Your task to perform on an android device: delete browsing data in the chrome app Image 0: 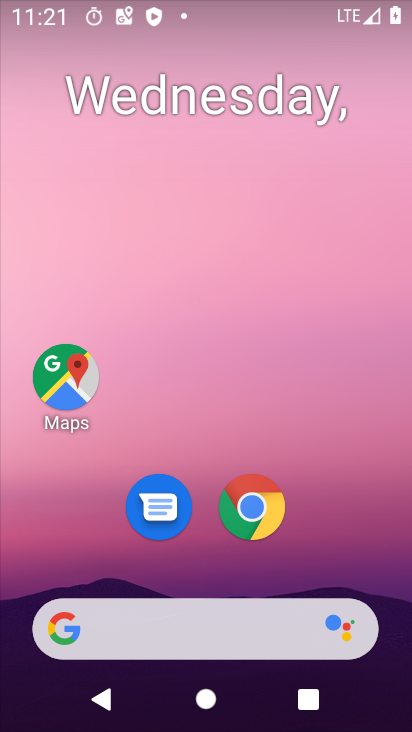
Step 0: click (251, 506)
Your task to perform on an android device: delete browsing data in the chrome app Image 1: 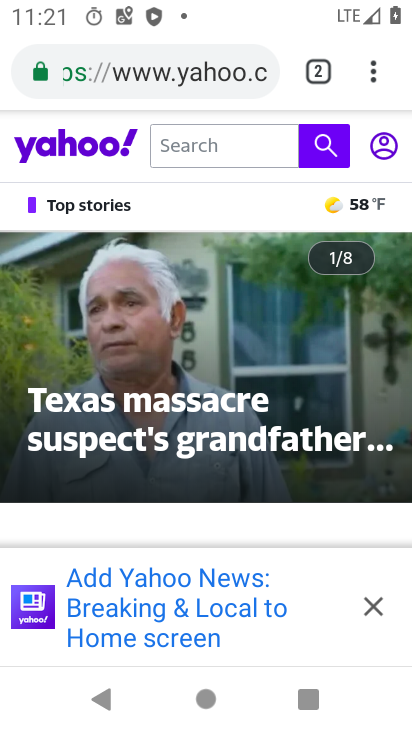
Step 1: click (373, 76)
Your task to perform on an android device: delete browsing data in the chrome app Image 2: 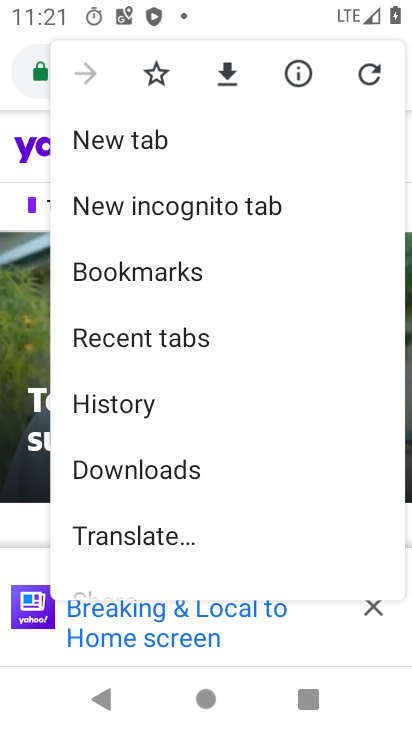
Step 2: click (110, 405)
Your task to perform on an android device: delete browsing data in the chrome app Image 3: 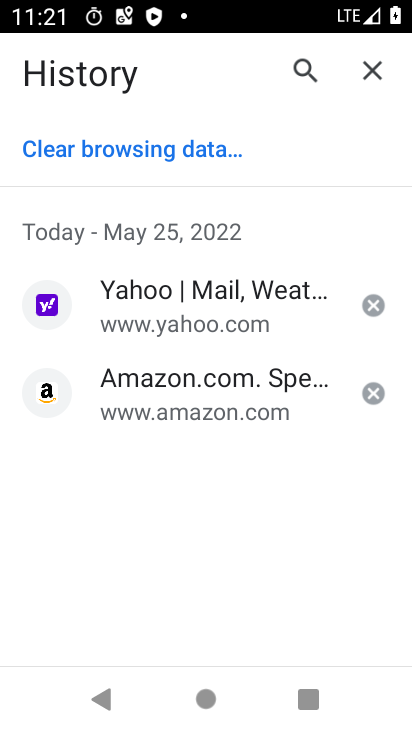
Step 3: click (148, 149)
Your task to perform on an android device: delete browsing data in the chrome app Image 4: 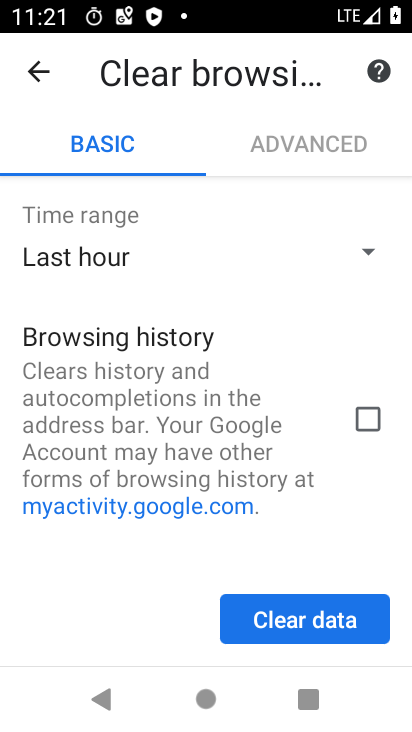
Step 4: click (366, 423)
Your task to perform on an android device: delete browsing data in the chrome app Image 5: 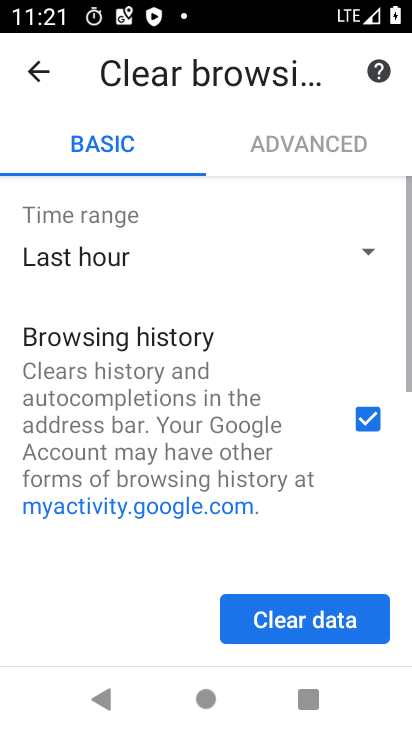
Step 5: drag from (302, 526) to (295, 187)
Your task to perform on an android device: delete browsing data in the chrome app Image 6: 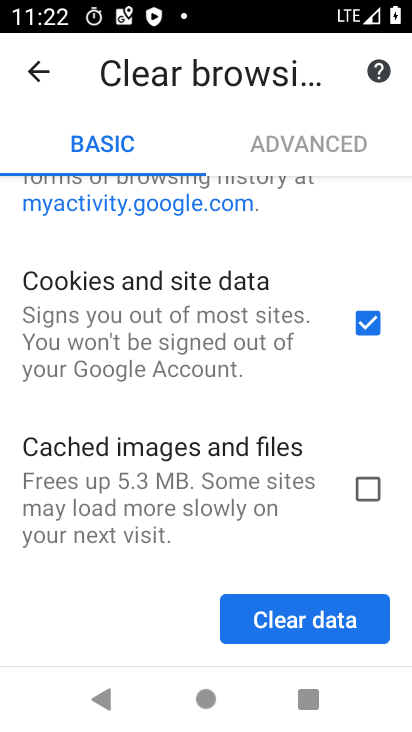
Step 6: click (364, 322)
Your task to perform on an android device: delete browsing data in the chrome app Image 7: 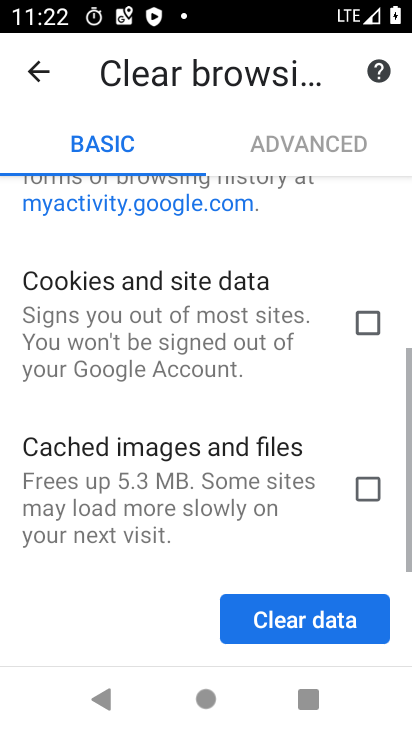
Step 7: drag from (278, 237) to (252, 474)
Your task to perform on an android device: delete browsing data in the chrome app Image 8: 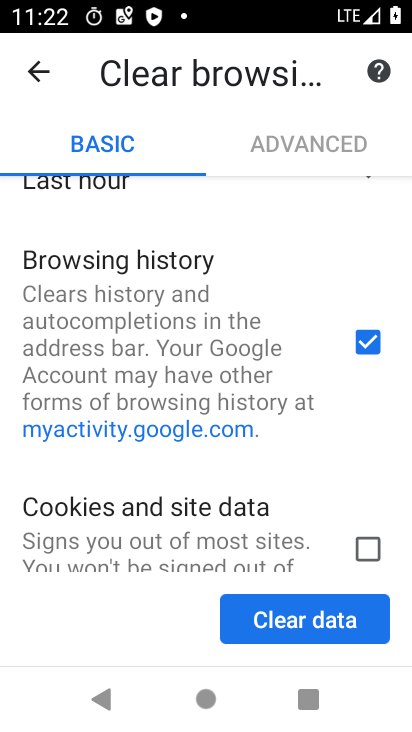
Step 8: click (295, 618)
Your task to perform on an android device: delete browsing data in the chrome app Image 9: 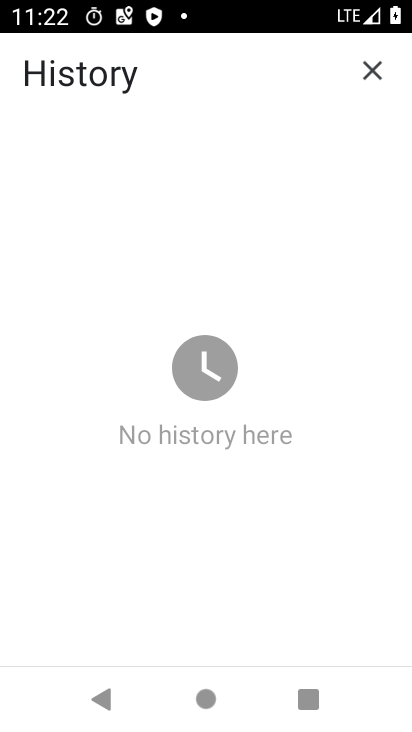
Step 9: task complete